Your task to perform on an android device: Open ESPN.com Image 0: 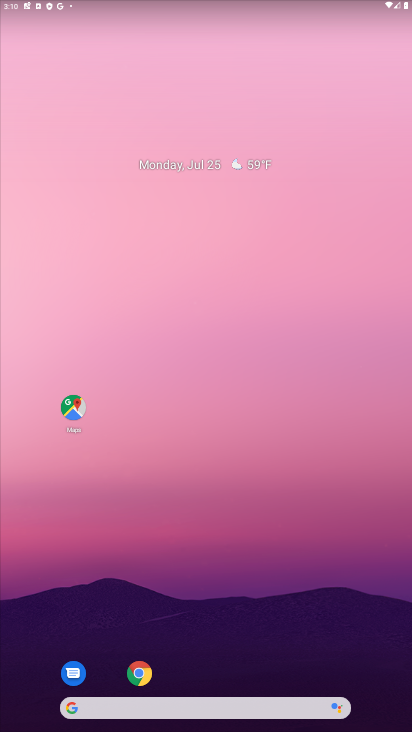
Step 0: click (144, 677)
Your task to perform on an android device: Open ESPN.com Image 1: 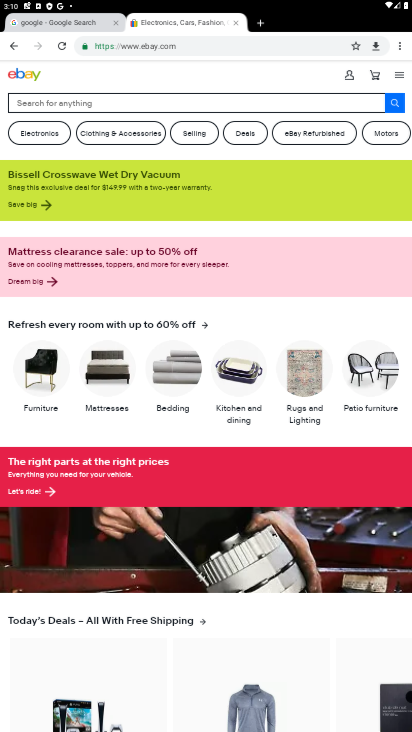
Step 1: click (265, 22)
Your task to perform on an android device: Open ESPN.com Image 2: 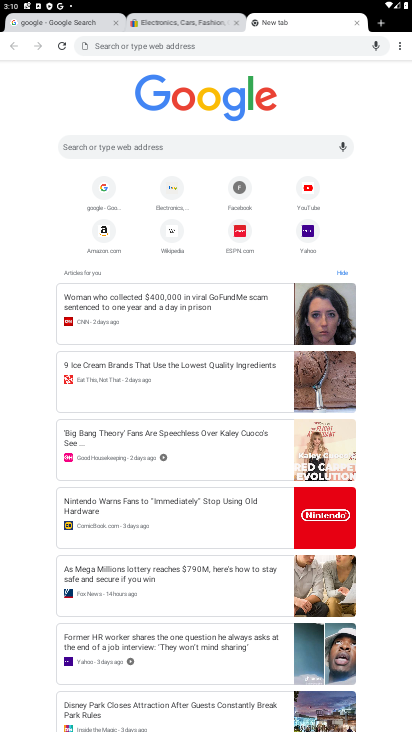
Step 2: click (238, 233)
Your task to perform on an android device: Open ESPN.com Image 3: 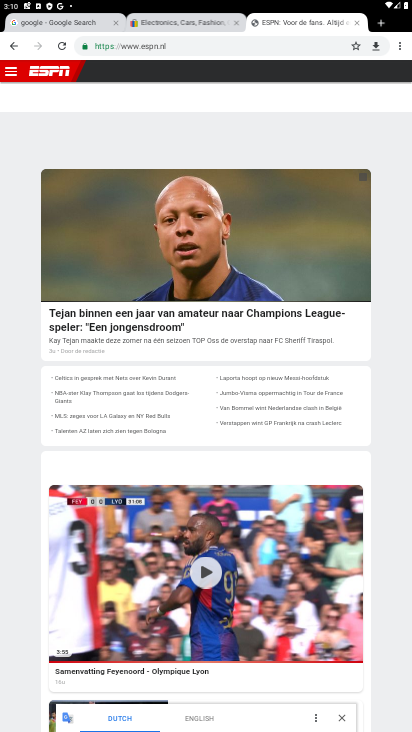
Step 3: task complete